Your task to perform on an android device: set the stopwatch Image 0: 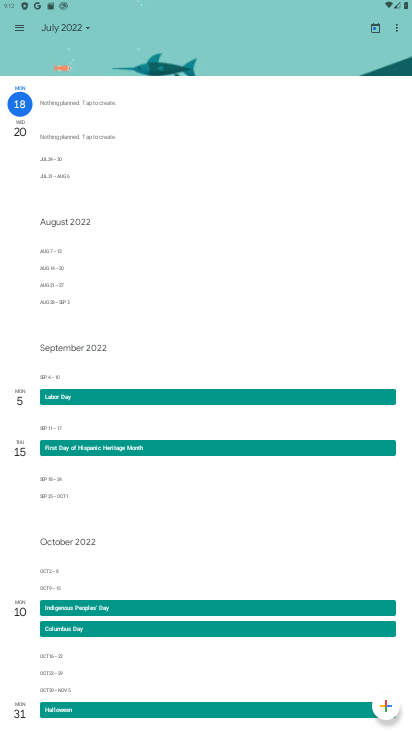
Step 0: press home button
Your task to perform on an android device: set the stopwatch Image 1: 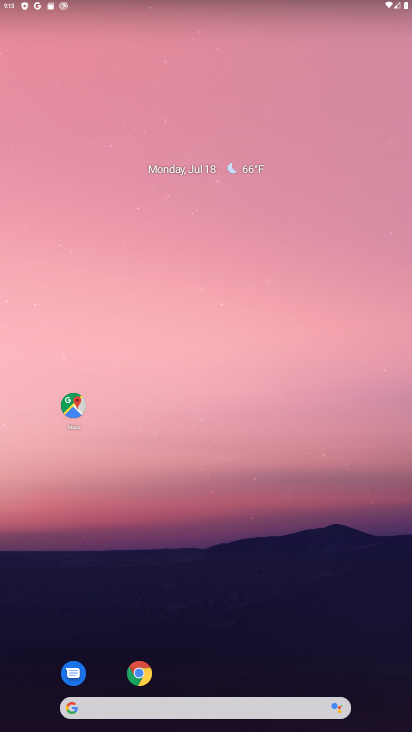
Step 1: drag from (184, 683) to (183, 81)
Your task to perform on an android device: set the stopwatch Image 2: 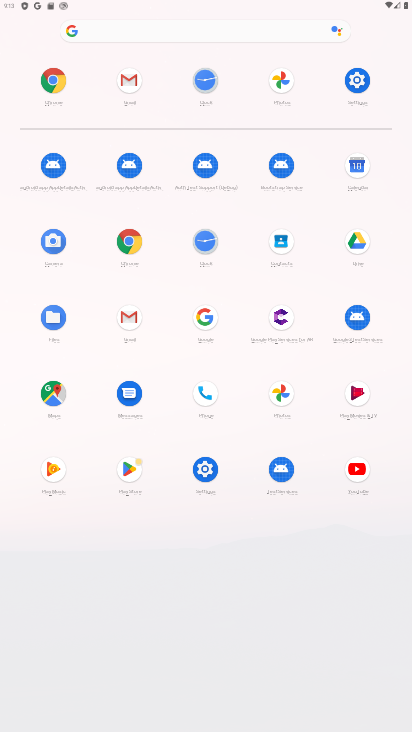
Step 2: click (205, 244)
Your task to perform on an android device: set the stopwatch Image 3: 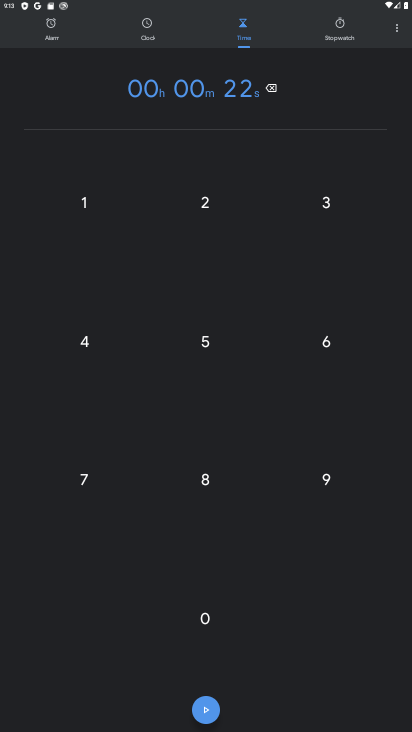
Step 3: click (341, 30)
Your task to perform on an android device: set the stopwatch Image 4: 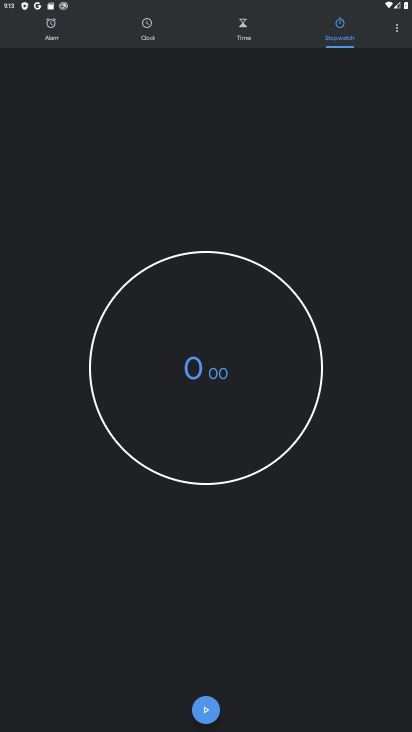
Step 4: click (203, 716)
Your task to perform on an android device: set the stopwatch Image 5: 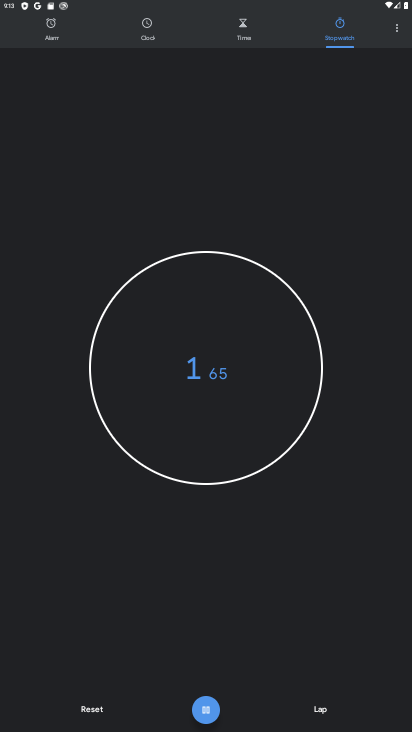
Step 5: click (201, 712)
Your task to perform on an android device: set the stopwatch Image 6: 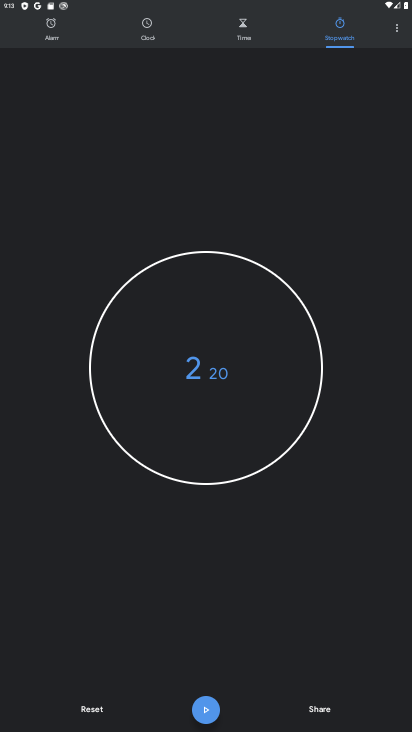
Step 6: task complete